Your task to perform on an android device: move an email to a new category in the gmail app Image 0: 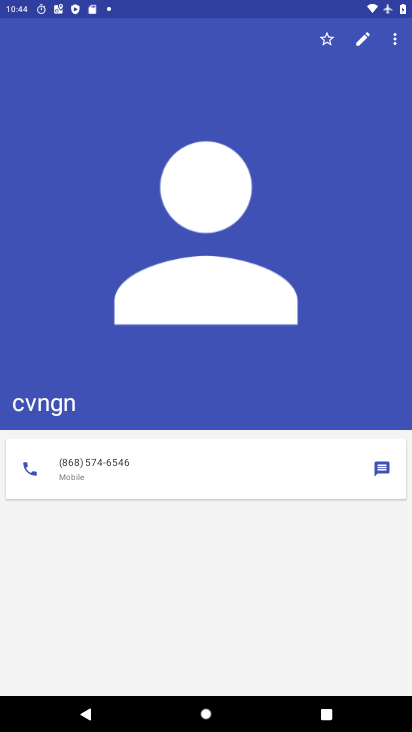
Step 0: press home button
Your task to perform on an android device: move an email to a new category in the gmail app Image 1: 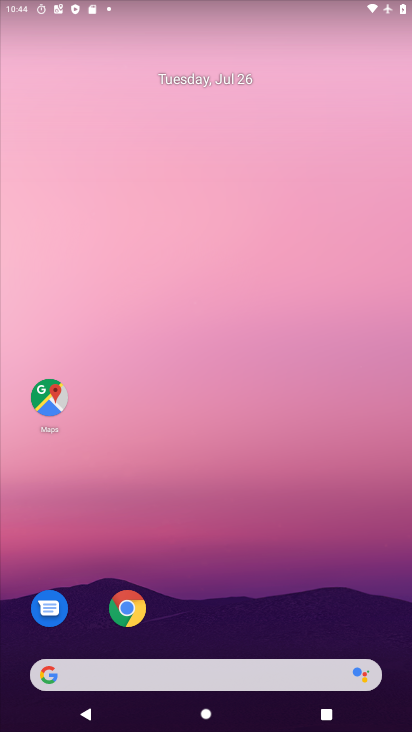
Step 1: drag from (183, 616) to (190, 212)
Your task to perform on an android device: move an email to a new category in the gmail app Image 2: 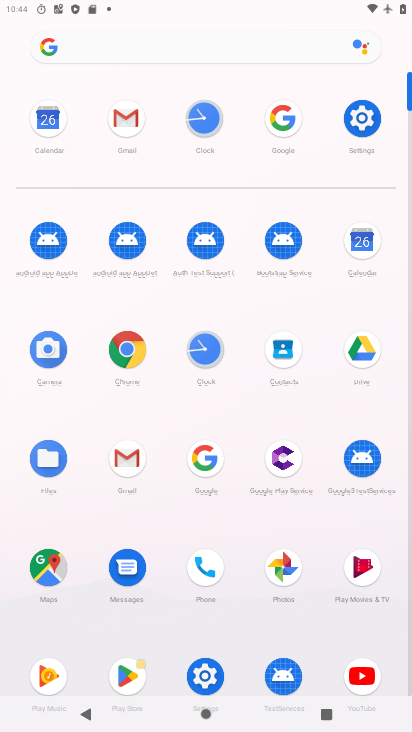
Step 2: click (129, 137)
Your task to perform on an android device: move an email to a new category in the gmail app Image 3: 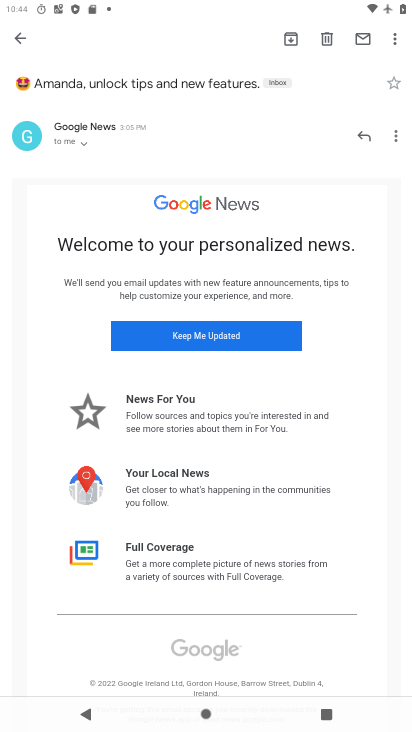
Step 3: click (401, 36)
Your task to perform on an android device: move an email to a new category in the gmail app Image 4: 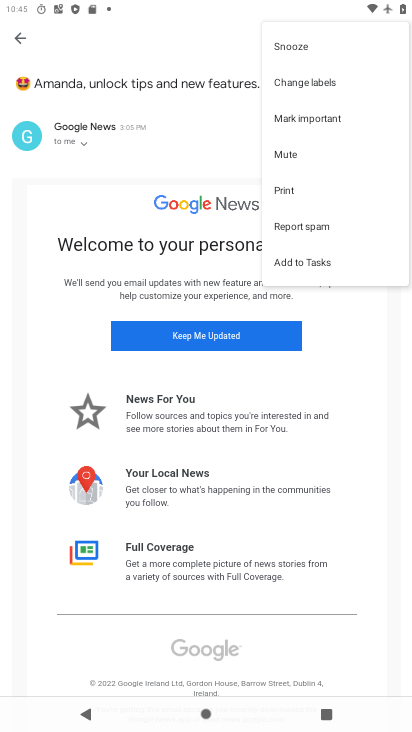
Step 4: click (324, 73)
Your task to perform on an android device: move an email to a new category in the gmail app Image 5: 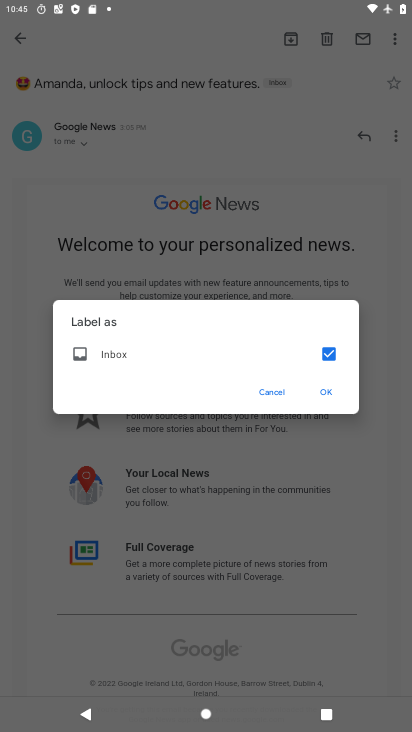
Step 5: click (332, 382)
Your task to perform on an android device: move an email to a new category in the gmail app Image 6: 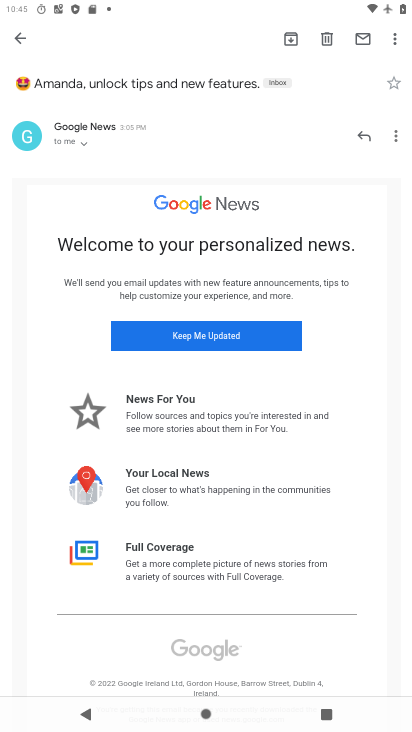
Step 6: task complete